Your task to perform on an android device: turn on bluetooth scan Image 0: 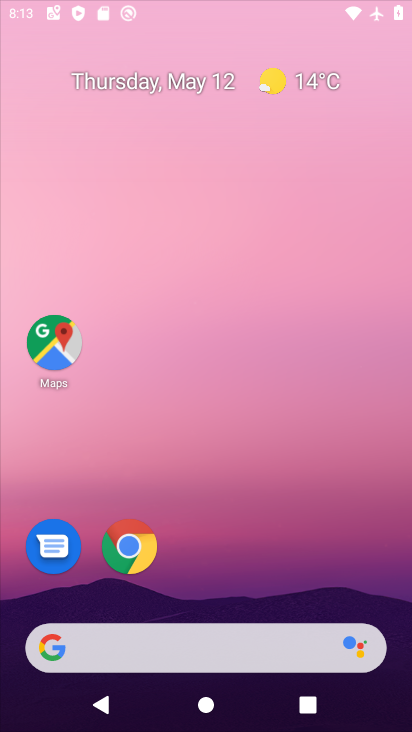
Step 0: click (342, 72)
Your task to perform on an android device: turn on bluetooth scan Image 1: 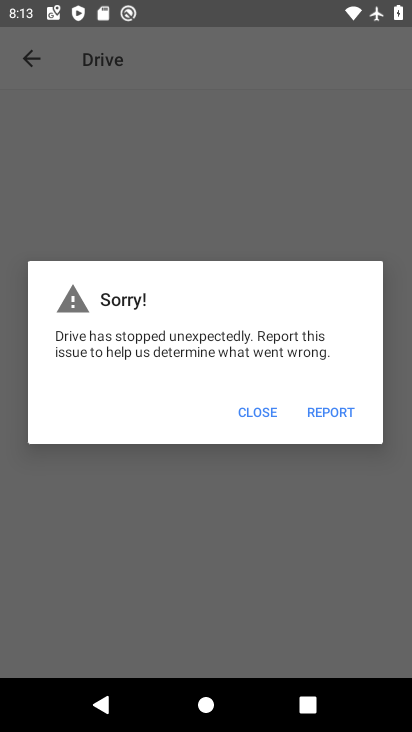
Step 1: press home button
Your task to perform on an android device: turn on bluetooth scan Image 2: 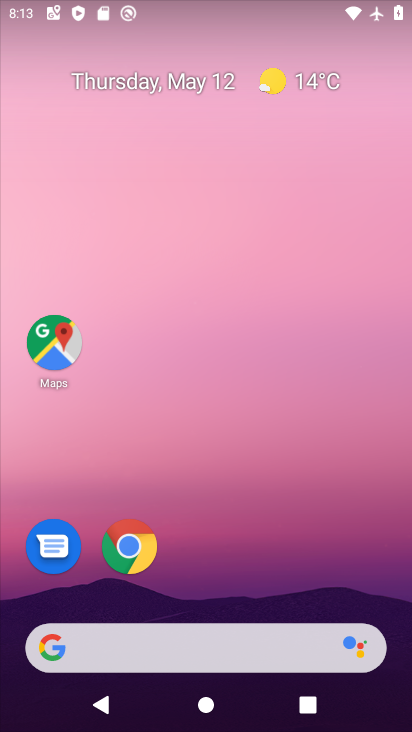
Step 2: drag from (205, 641) to (363, 207)
Your task to perform on an android device: turn on bluetooth scan Image 3: 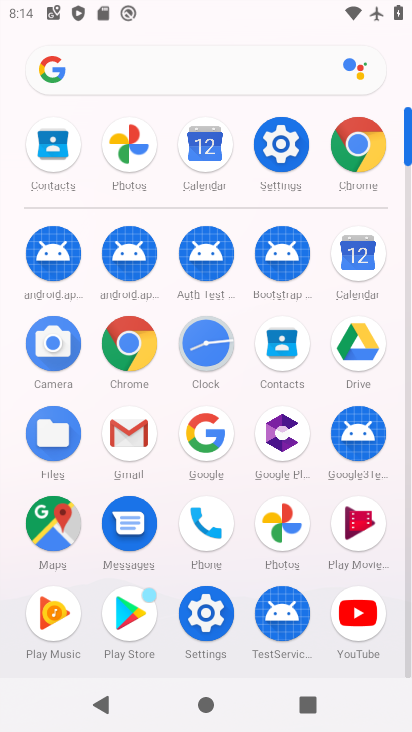
Step 3: click (280, 137)
Your task to perform on an android device: turn on bluetooth scan Image 4: 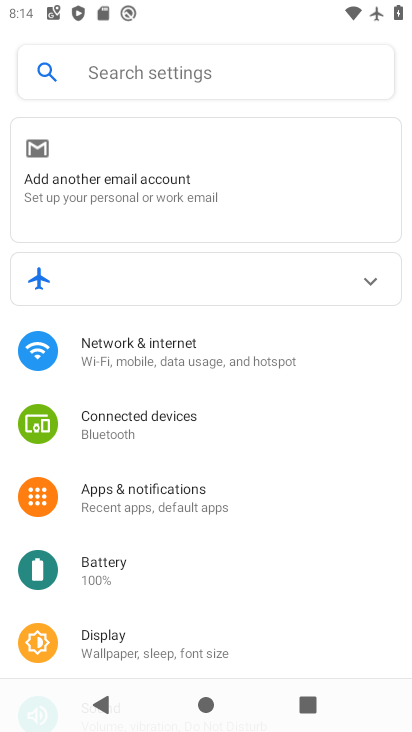
Step 4: drag from (186, 593) to (257, 223)
Your task to perform on an android device: turn on bluetooth scan Image 5: 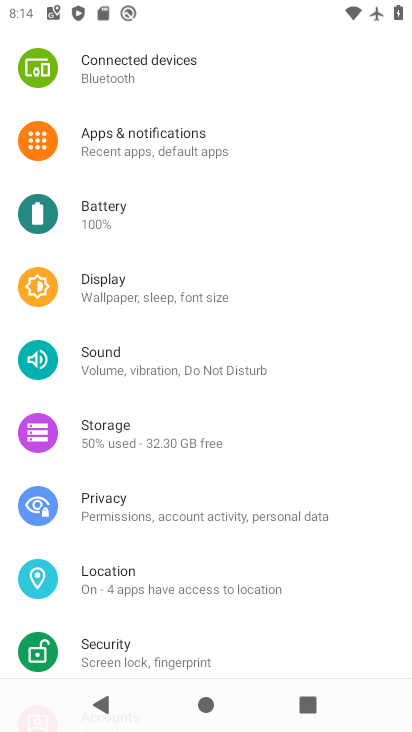
Step 5: click (166, 587)
Your task to perform on an android device: turn on bluetooth scan Image 6: 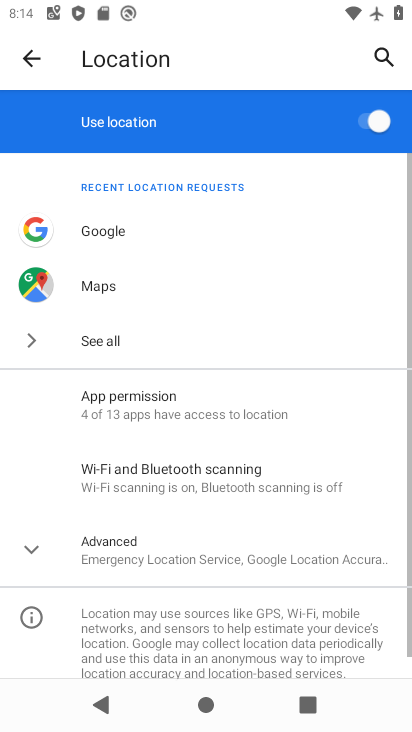
Step 6: click (171, 475)
Your task to perform on an android device: turn on bluetooth scan Image 7: 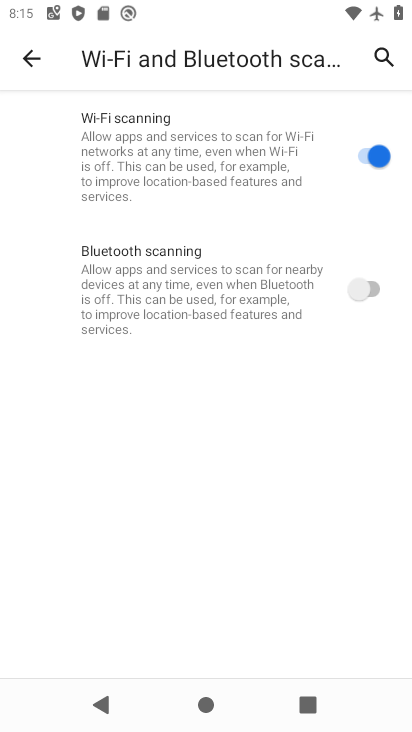
Step 7: click (371, 290)
Your task to perform on an android device: turn on bluetooth scan Image 8: 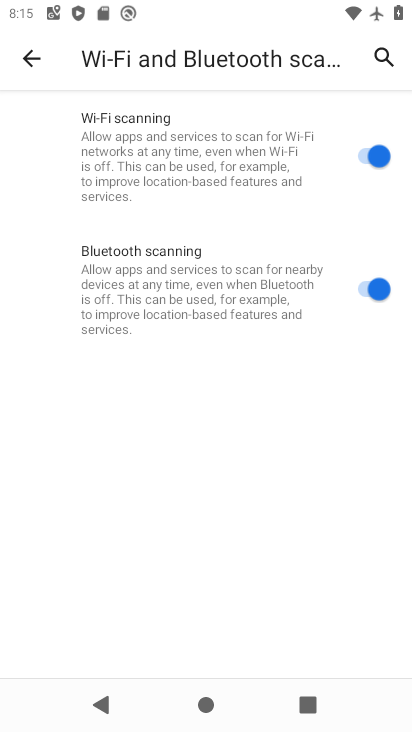
Step 8: task complete